Your task to perform on an android device: Play the last video I watched on Youtube Image 0: 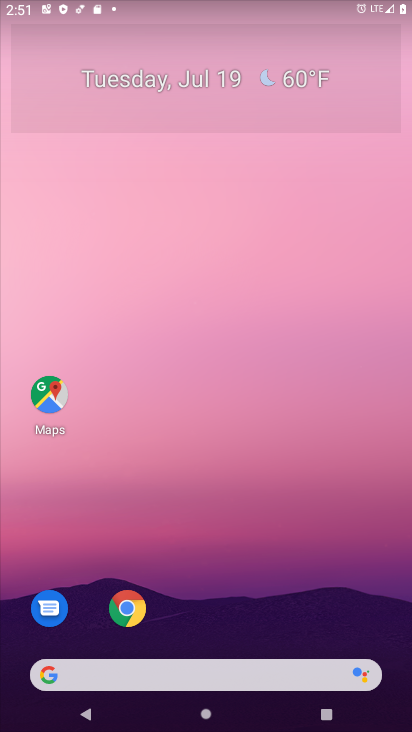
Step 0: drag from (321, 589) to (315, 79)
Your task to perform on an android device: Play the last video I watched on Youtube Image 1: 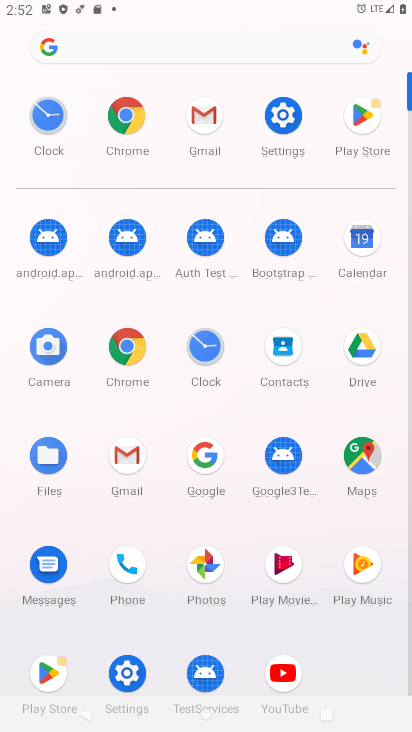
Step 1: click (280, 669)
Your task to perform on an android device: Play the last video I watched on Youtube Image 2: 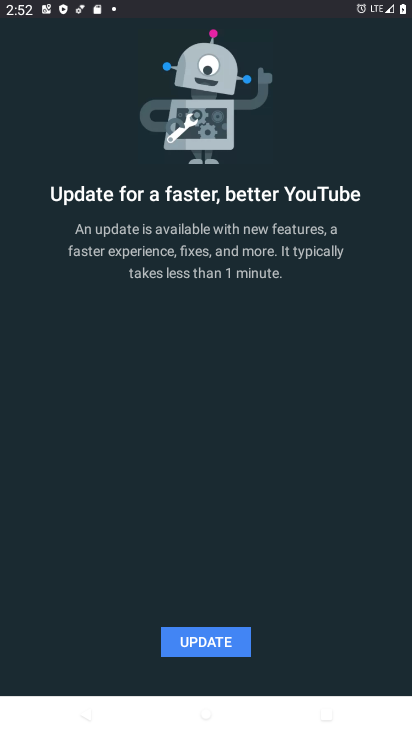
Step 2: click (218, 638)
Your task to perform on an android device: Play the last video I watched on Youtube Image 3: 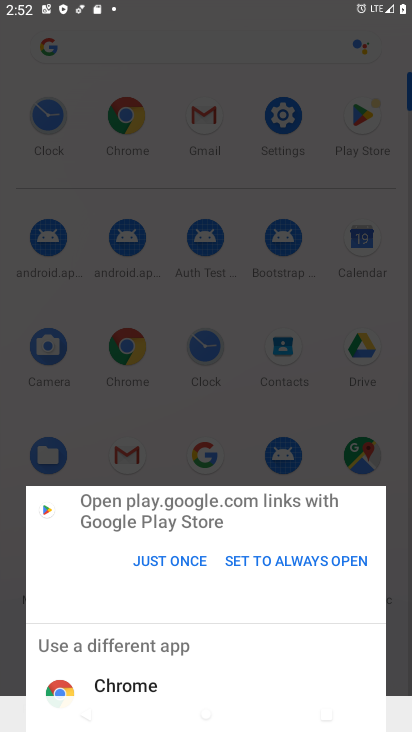
Step 3: click (150, 561)
Your task to perform on an android device: Play the last video I watched on Youtube Image 4: 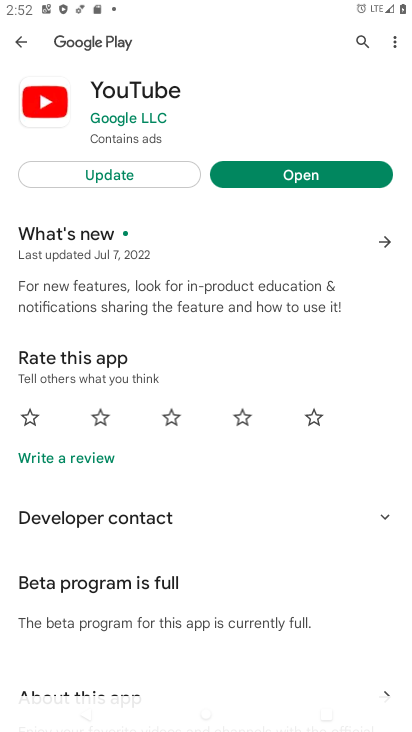
Step 4: click (140, 172)
Your task to perform on an android device: Play the last video I watched on Youtube Image 5: 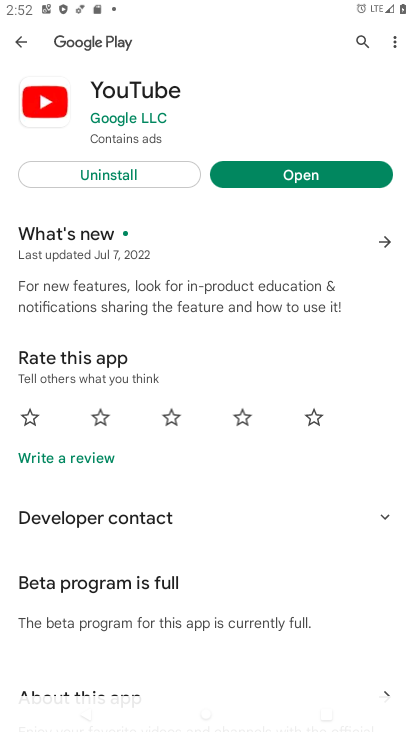
Step 5: click (290, 175)
Your task to perform on an android device: Play the last video I watched on Youtube Image 6: 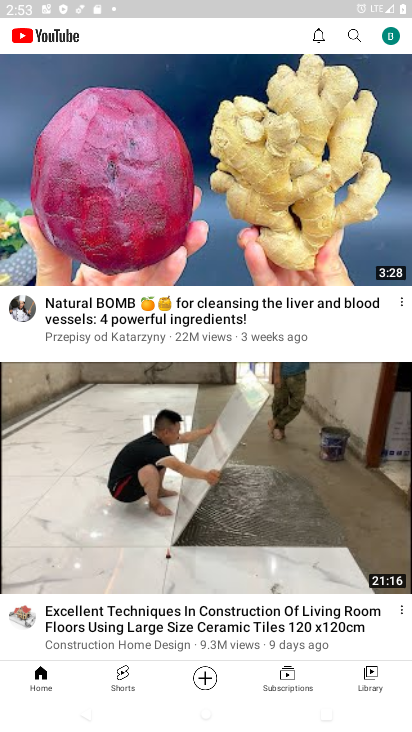
Step 6: click (365, 674)
Your task to perform on an android device: Play the last video I watched on Youtube Image 7: 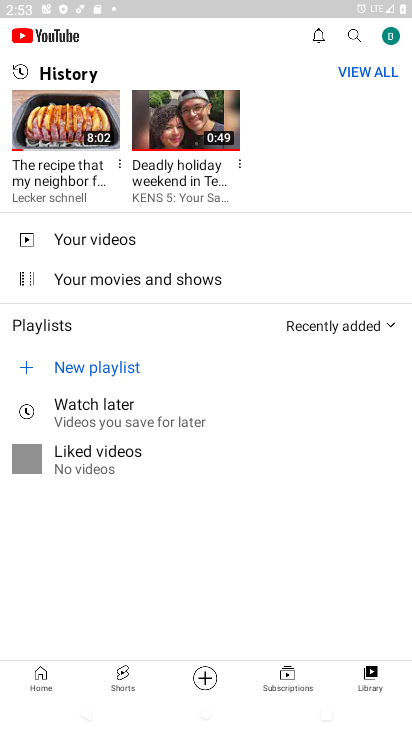
Step 7: click (66, 120)
Your task to perform on an android device: Play the last video I watched on Youtube Image 8: 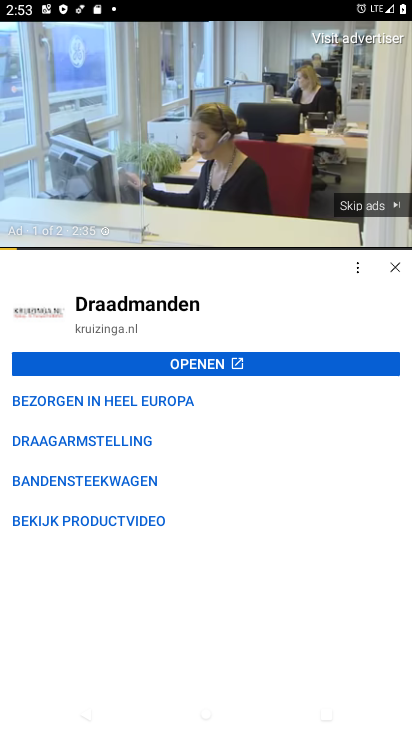
Step 8: click (368, 207)
Your task to perform on an android device: Play the last video I watched on Youtube Image 9: 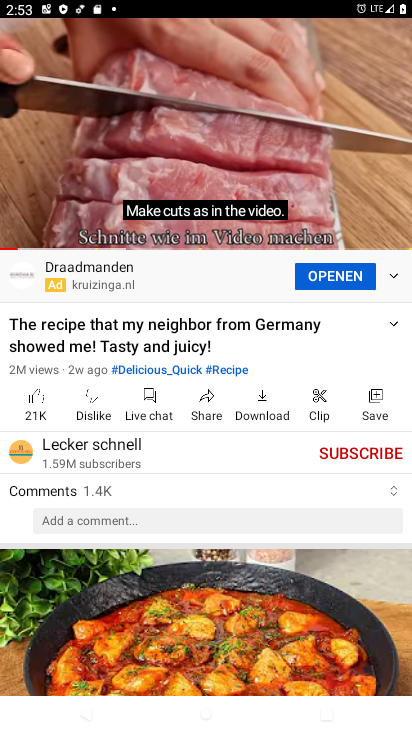
Step 9: task complete